Your task to perform on an android device: Find coffee shops on Maps Image 0: 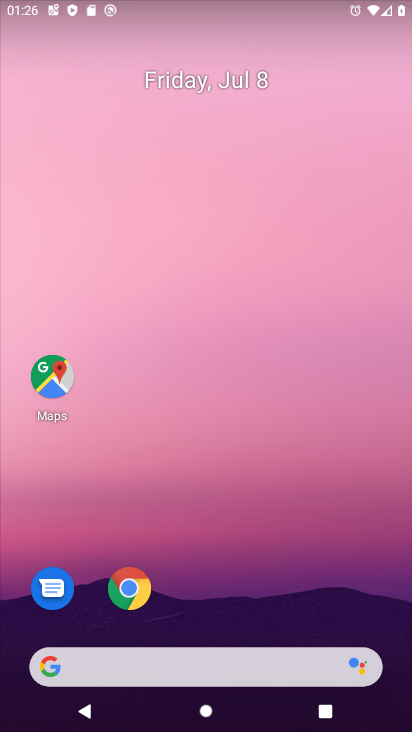
Step 0: drag from (216, 614) to (161, 15)
Your task to perform on an android device: Find coffee shops on Maps Image 1: 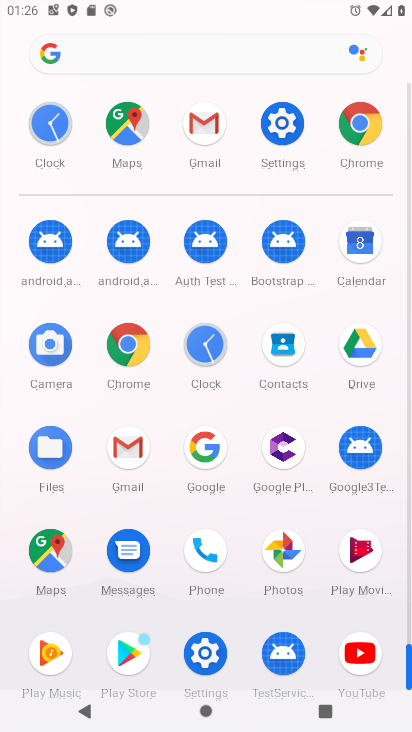
Step 1: click (55, 550)
Your task to perform on an android device: Find coffee shops on Maps Image 2: 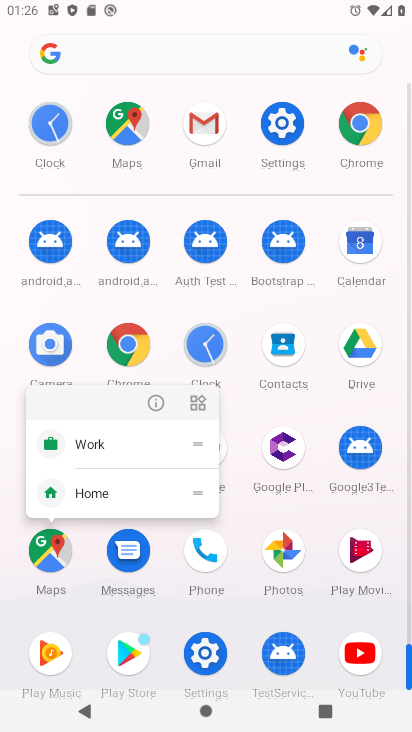
Step 2: click (155, 400)
Your task to perform on an android device: Find coffee shops on Maps Image 3: 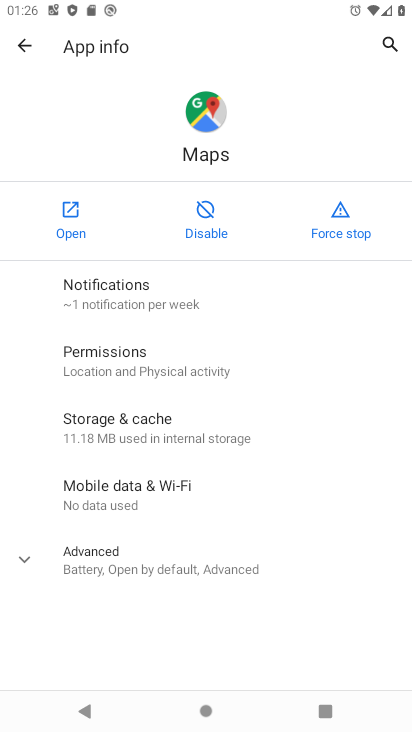
Step 3: click (72, 199)
Your task to perform on an android device: Find coffee shops on Maps Image 4: 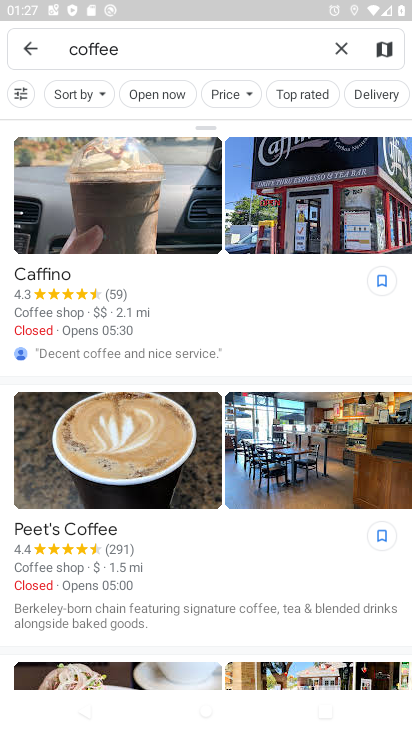
Step 4: task complete